Your task to perform on an android device: Open Maps and search for coffee Image 0: 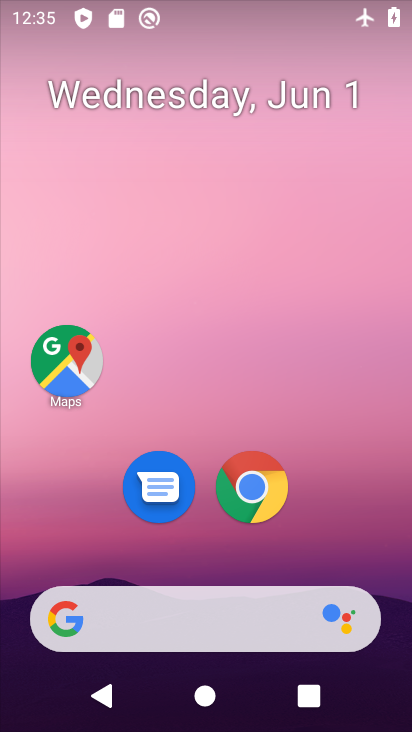
Step 0: drag from (338, 546) to (317, 267)
Your task to perform on an android device: Open Maps and search for coffee Image 1: 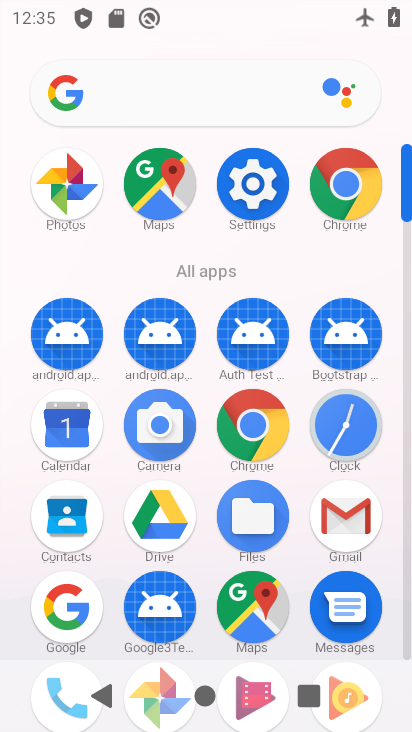
Step 1: click (154, 176)
Your task to perform on an android device: Open Maps and search for coffee Image 2: 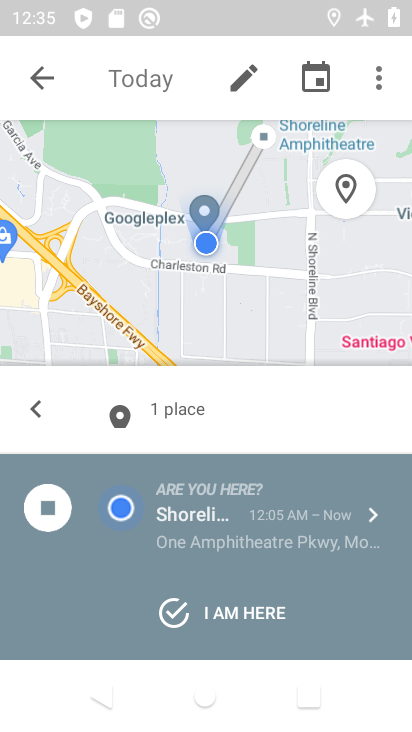
Step 2: click (22, 70)
Your task to perform on an android device: Open Maps and search for coffee Image 3: 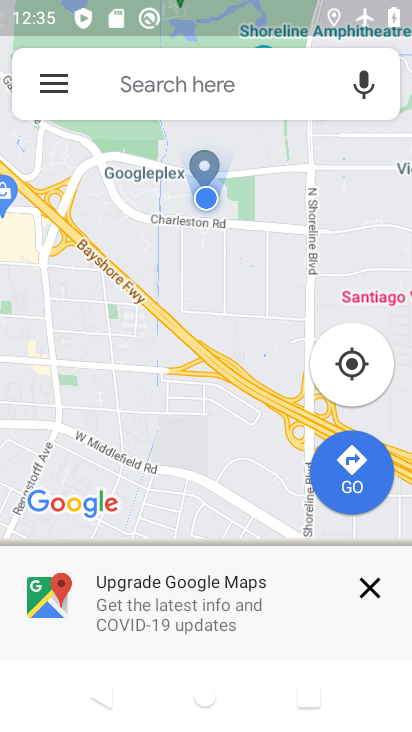
Step 3: click (226, 69)
Your task to perform on an android device: Open Maps and search for coffee Image 4: 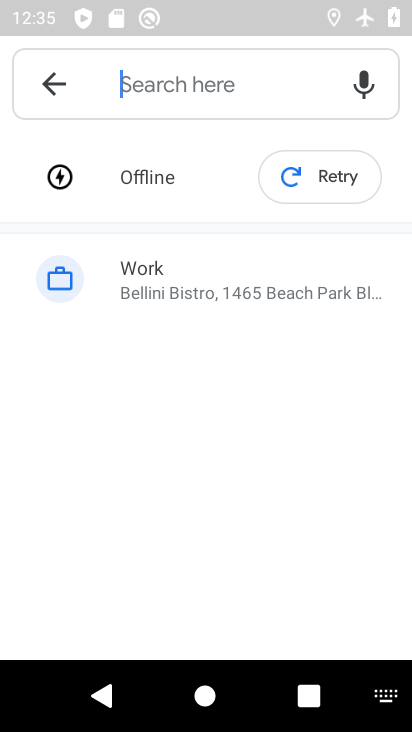
Step 4: click (155, 74)
Your task to perform on an android device: Open Maps and search for coffee Image 5: 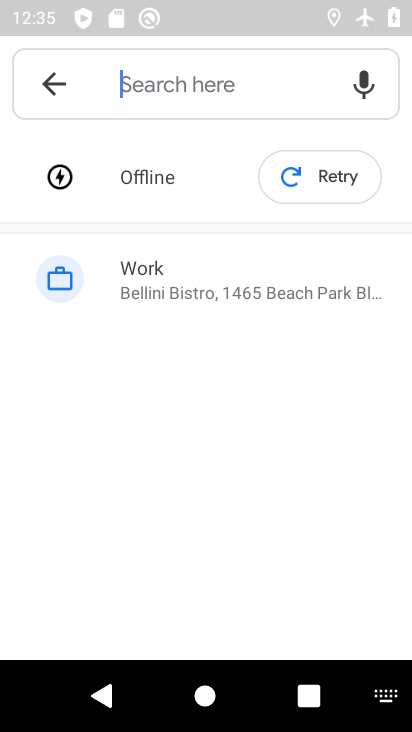
Step 5: click (159, 75)
Your task to perform on an android device: Open Maps and search for coffee Image 6: 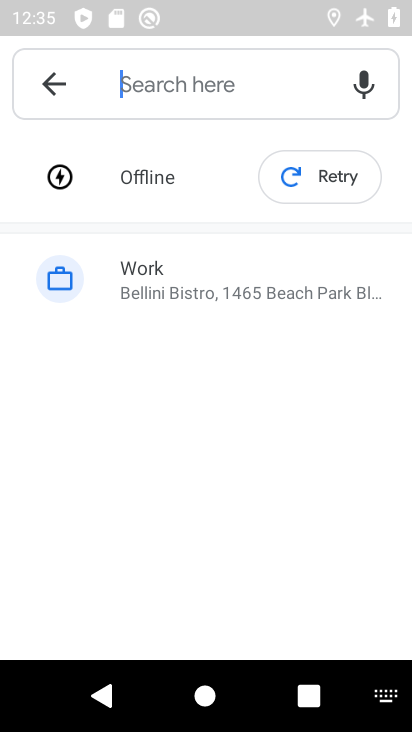
Step 6: type "coffee"
Your task to perform on an android device: Open Maps and search for coffee Image 7: 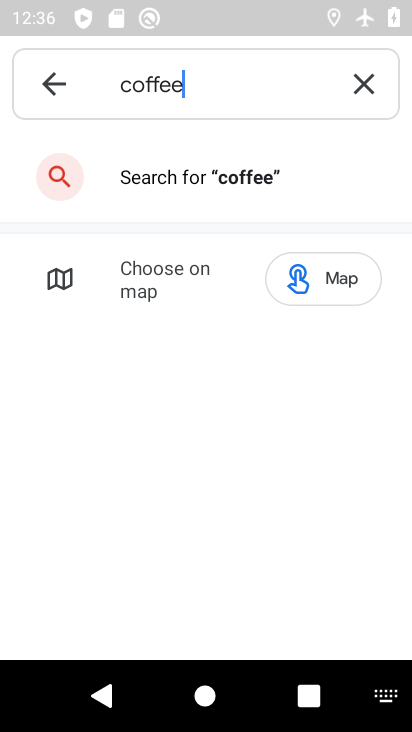
Step 7: click (224, 184)
Your task to perform on an android device: Open Maps and search for coffee Image 8: 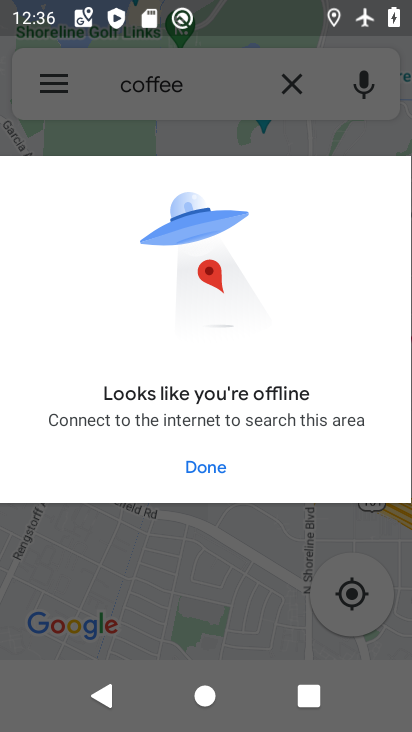
Step 8: task complete